Your task to perform on an android device: turn off translation in the chrome app Image 0: 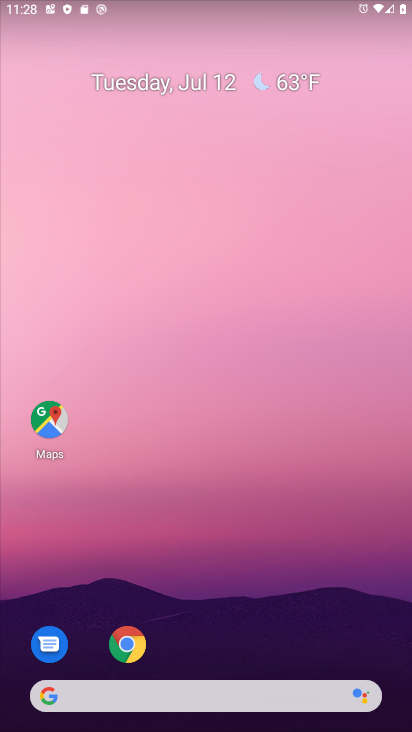
Step 0: click (128, 644)
Your task to perform on an android device: turn off translation in the chrome app Image 1: 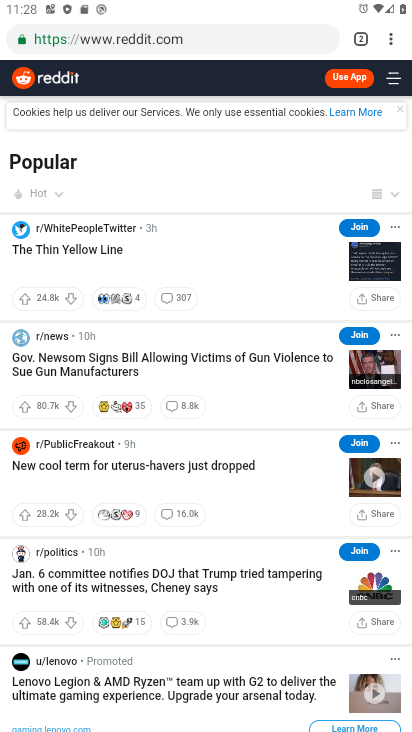
Step 1: click (392, 39)
Your task to perform on an android device: turn off translation in the chrome app Image 2: 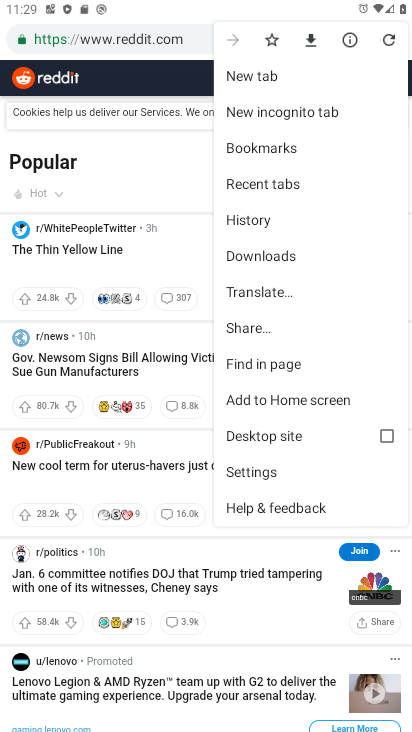
Step 2: click (265, 470)
Your task to perform on an android device: turn off translation in the chrome app Image 3: 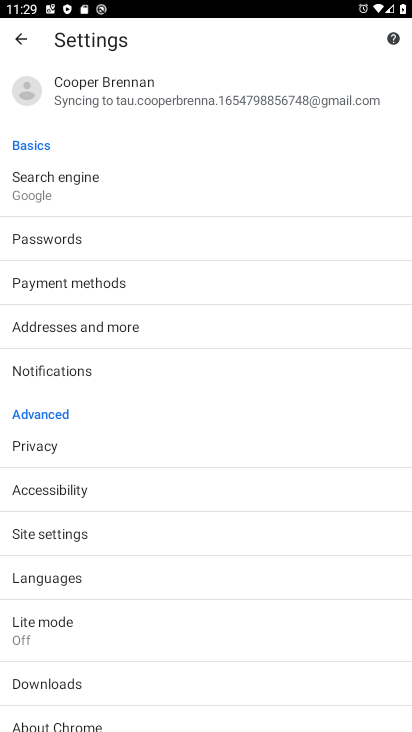
Step 3: click (58, 581)
Your task to perform on an android device: turn off translation in the chrome app Image 4: 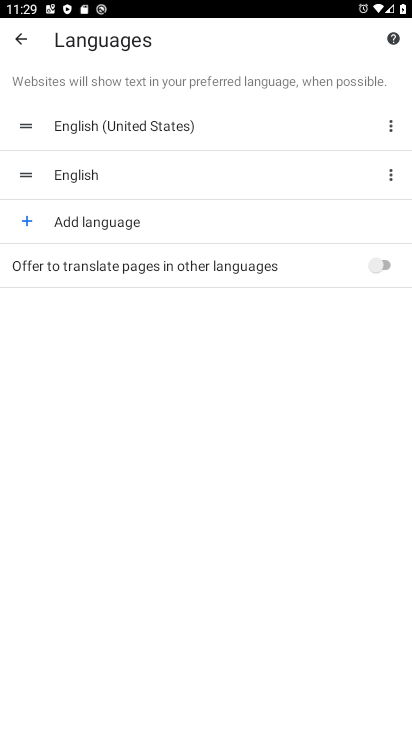
Step 4: task complete